Your task to perform on an android device: set the stopwatch Image 0: 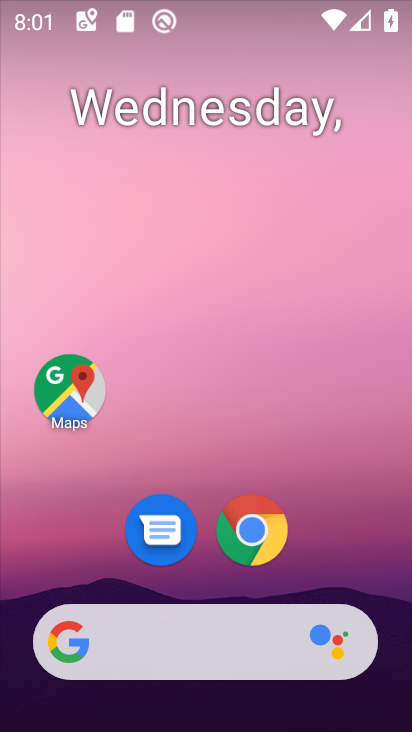
Step 0: drag from (382, 628) to (268, 87)
Your task to perform on an android device: set the stopwatch Image 1: 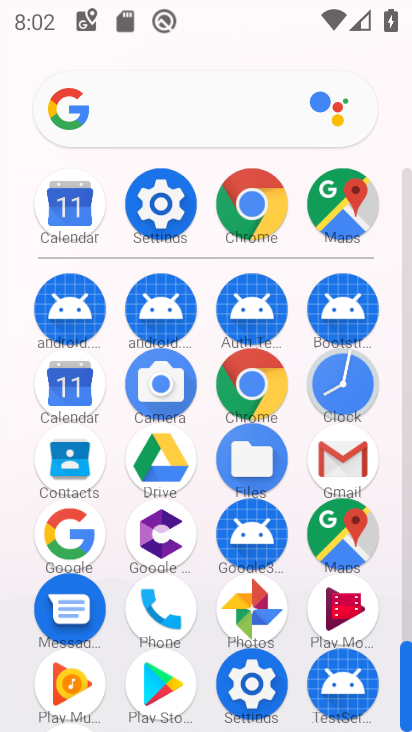
Step 1: click (331, 384)
Your task to perform on an android device: set the stopwatch Image 2: 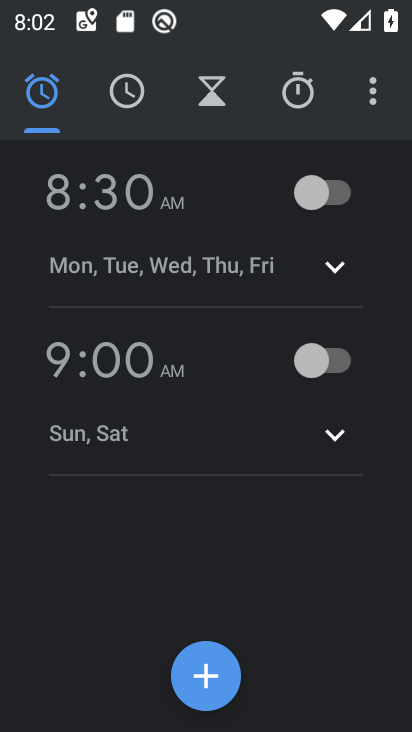
Step 2: click (301, 97)
Your task to perform on an android device: set the stopwatch Image 3: 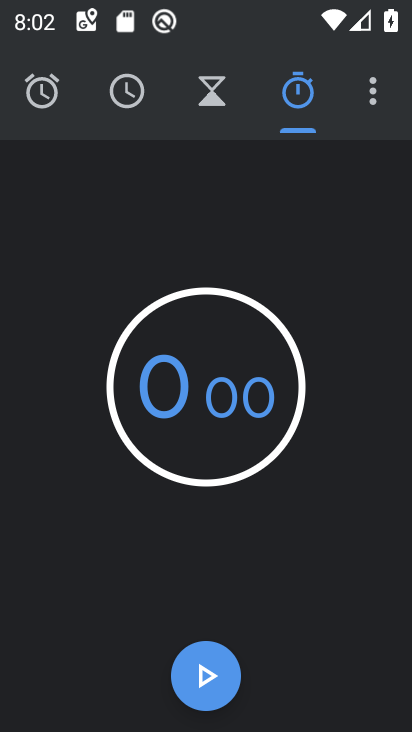
Step 3: task complete